Your task to perform on an android device: see tabs open on other devices in the chrome app Image 0: 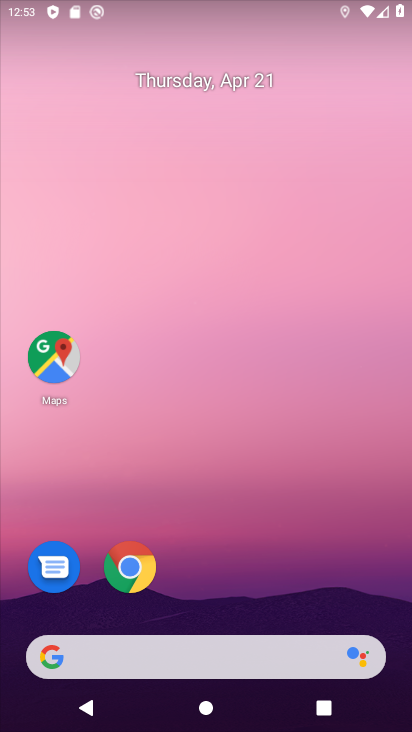
Step 0: click (132, 561)
Your task to perform on an android device: see tabs open on other devices in the chrome app Image 1: 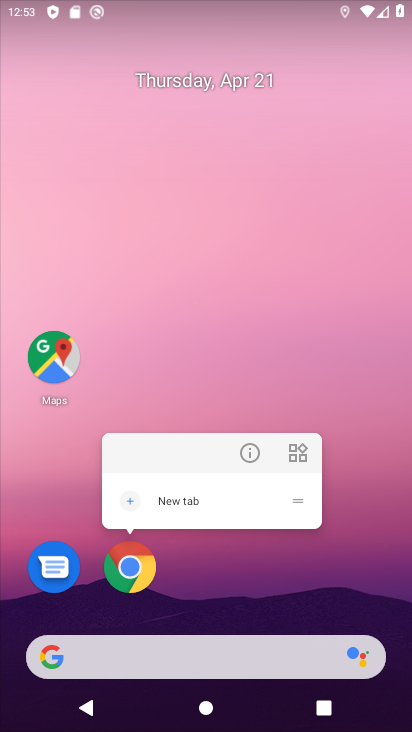
Step 1: click (131, 574)
Your task to perform on an android device: see tabs open on other devices in the chrome app Image 2: 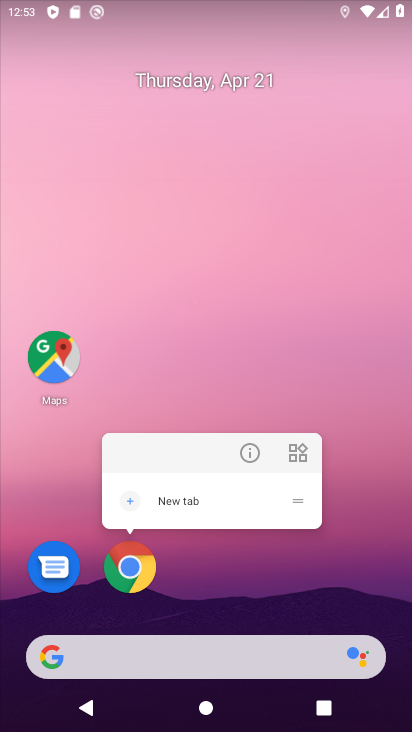
Step 2: click (119, 564)
Your task to perform on an android device: see tabs open on other devices in the chrome app Image 3: 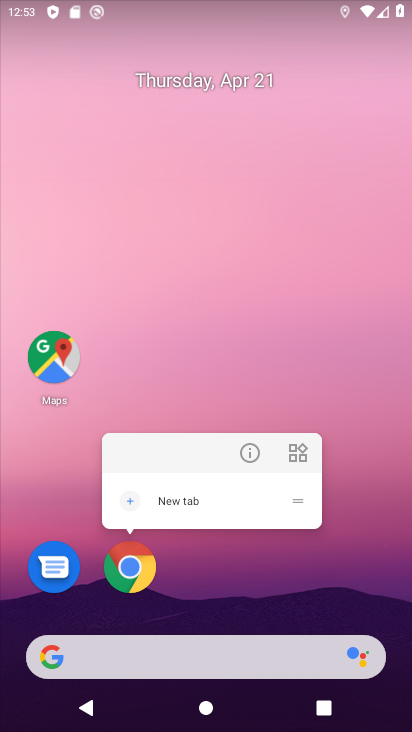
Step 3: click (130, 566)
Your task to perform on an android device: see tabs open on other devices in the chrome app Image 4: 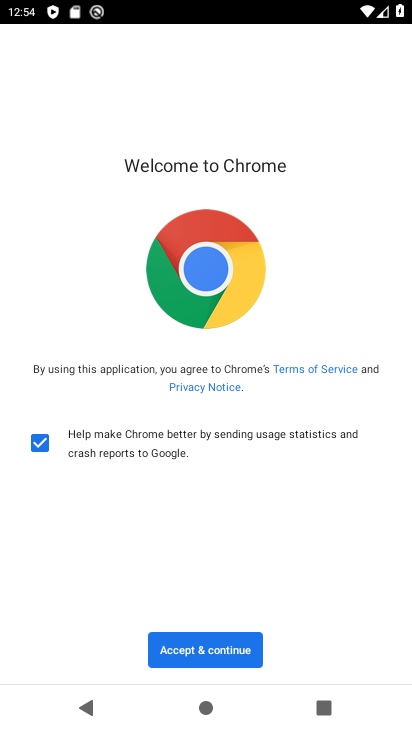
Step 4: click (187, 644)
Your task to perform on an android device: see tabs open on other devices in the chrome app Image 5: 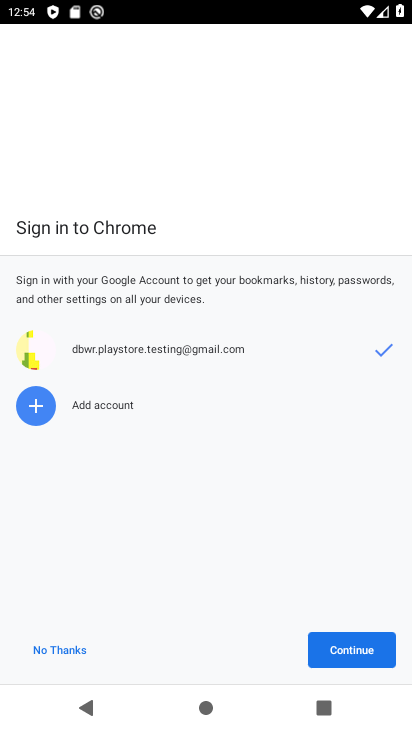
Step 5: click (334, 649)
Your task to perform on an android device: see tabs open on other devices in the chrome app Image 6: 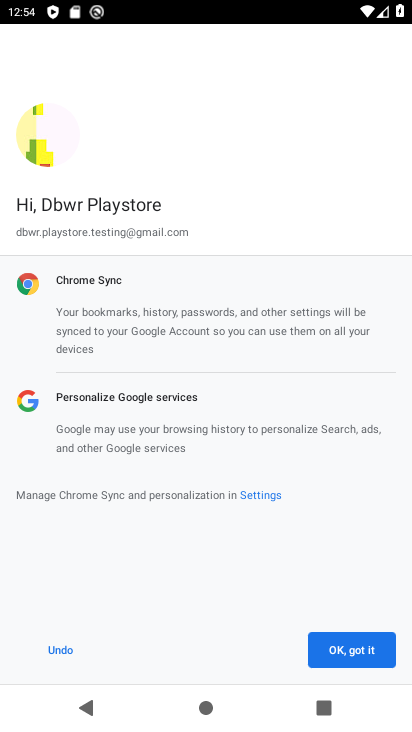
Step 6: click (334, 652)
Your task to perform on an android device: see tabs open on other devices in the chrome app Image 7: 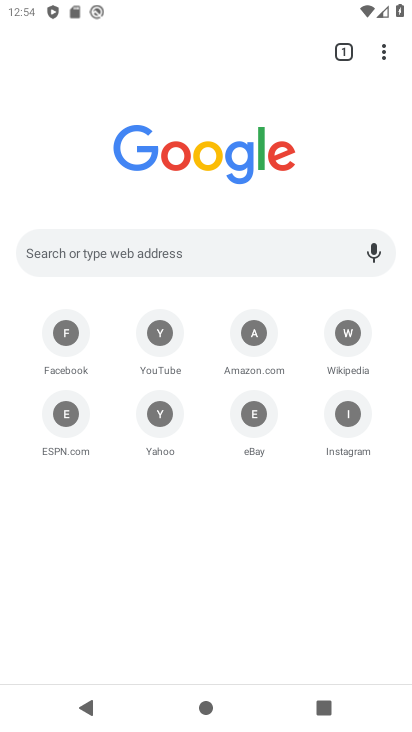
Step 7: task complete